Your task to perform on an android device: manage bookmarks in the chrome app Image 0: 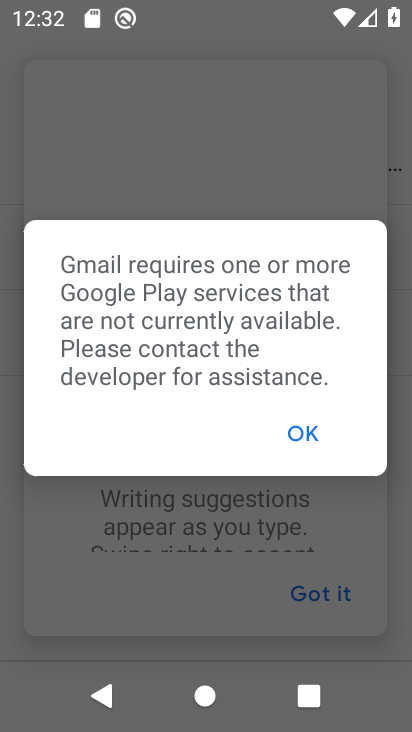
Step 0: press home button
Your task to perform on an android device: manage bookmarks in the chrome app Image 1: 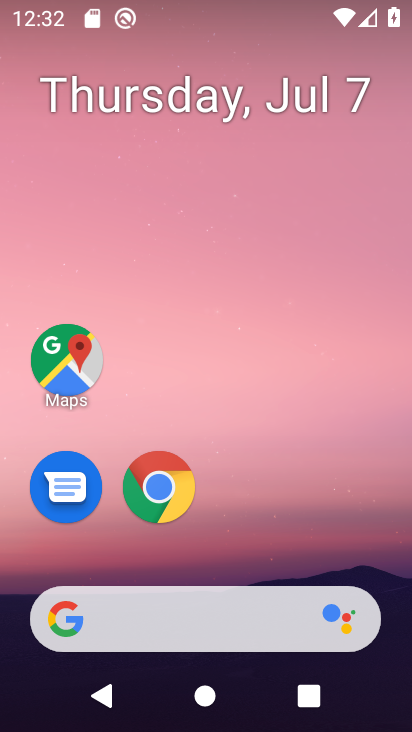
Step 1: drag from (362, 564) to (366, 154)
Your task to perform on an android device: manage bookmarks in the chrome app Image 2: 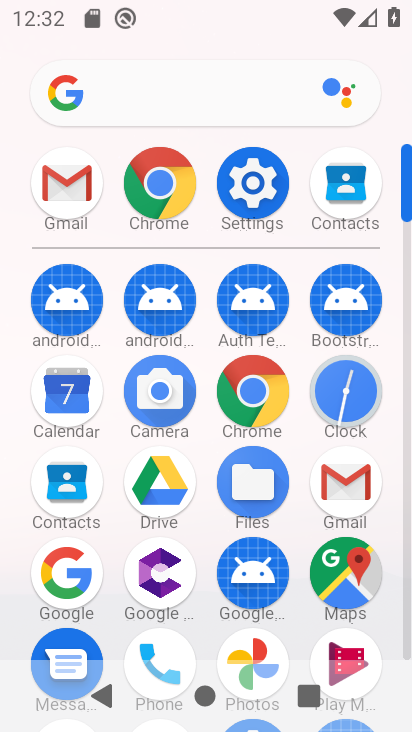
Step 2: click (251, 384)
Your task to perform on an android device: manage bookmarks in the chrome app Image 3: 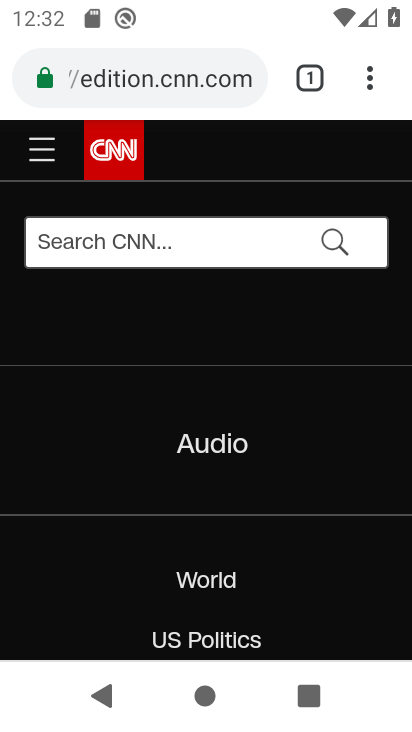
Step 3: click (372, 79)
Your task to perform on an android device: manage bookmarks in the chrome app Image 4: 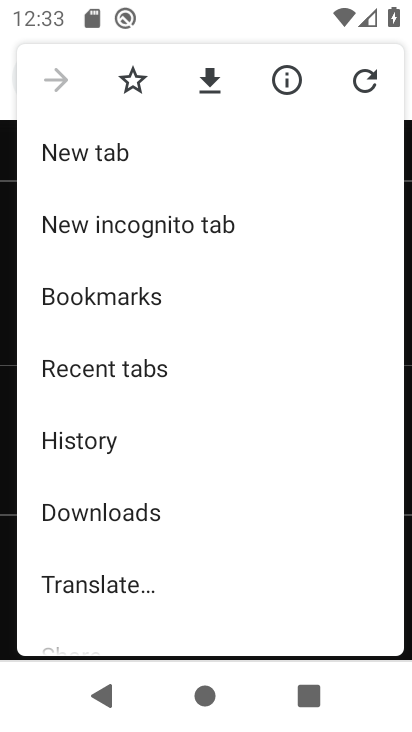
Step 4: click (141, 304)
Your task to perform on an android device: manage bookmarks in the chrome app Image 5: 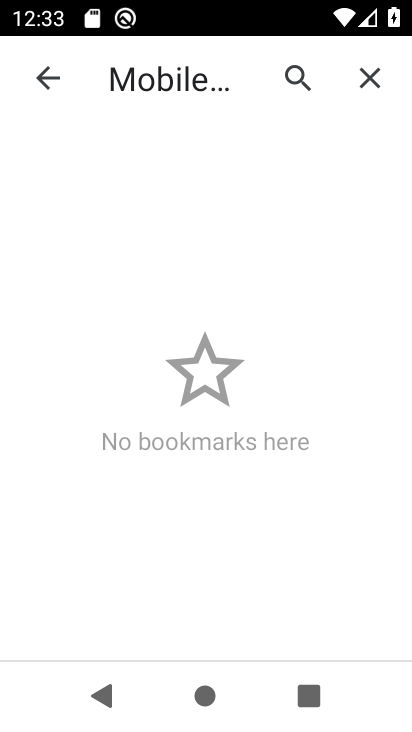
Step 5: task complete